Your task to perform on an android device: check android version Image 0: 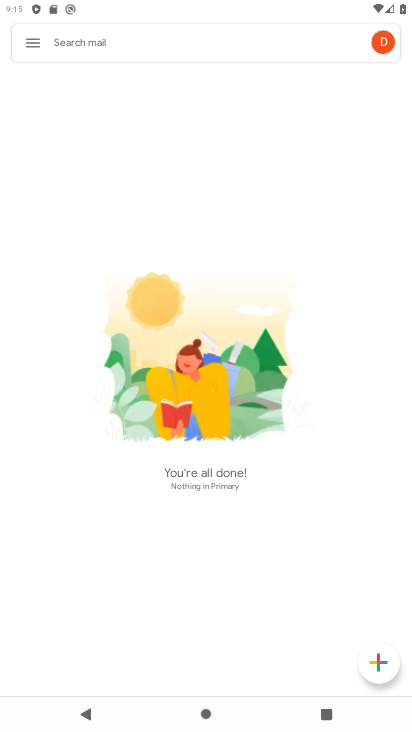
Step 0: press home button
Your task to perform on an android device: check android version Image 1: 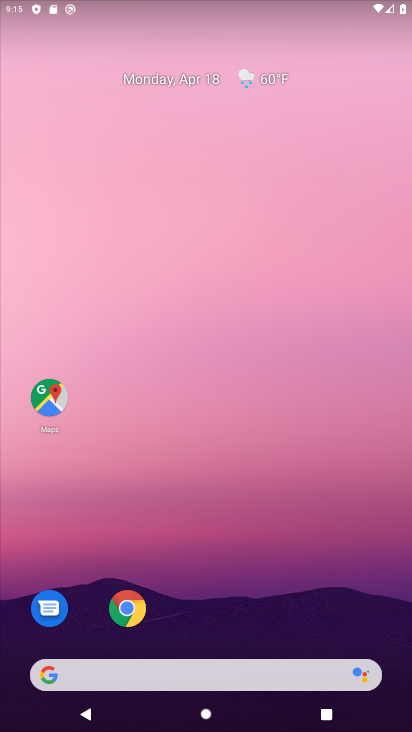
Step 1: drag from (272, 612) to (289, 7)
Your task to perform on an android device: check android version Image 2: 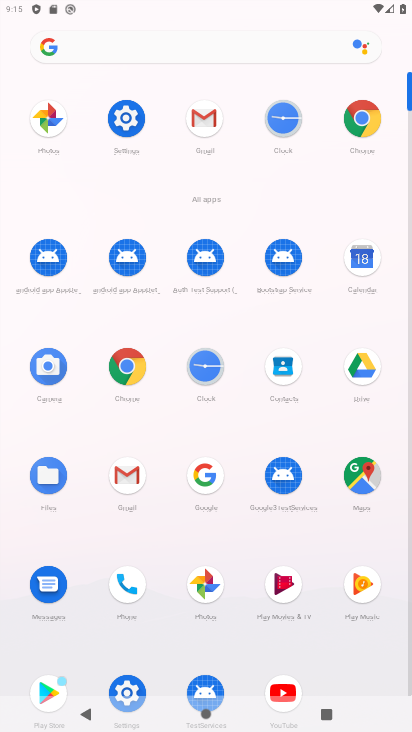
Step 2: click (130, 116)
Your task to perform on an android device: check android version Image 3: 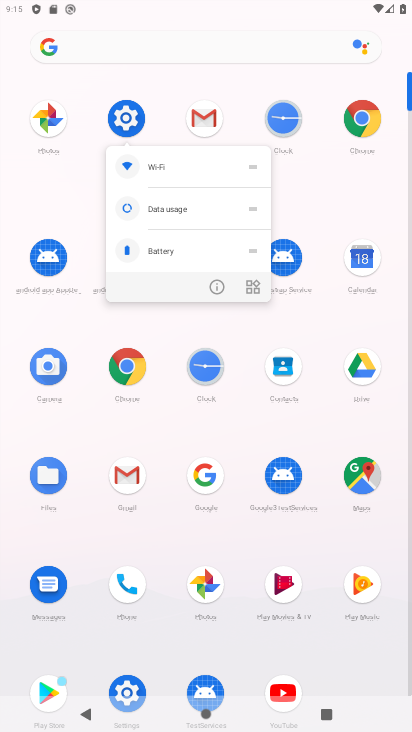
Step 3: click (130, 116)
Your task to perform on an android device: check android version Image 4: 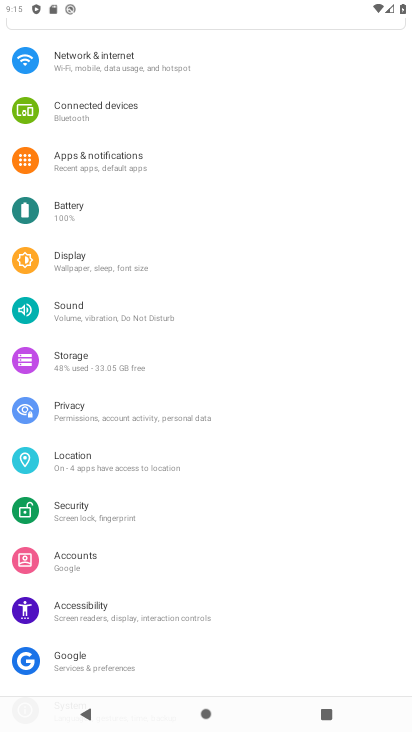
Step 4: drag from (248, 640) to (264, 137)
Your task to perform on an android device: check android version Image 5: 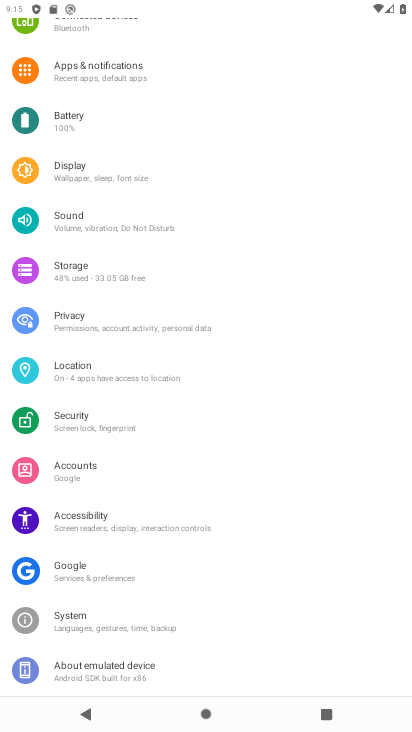
Step 5: click (80, 659)
Your task to perform on an android device: check android version Image 6: 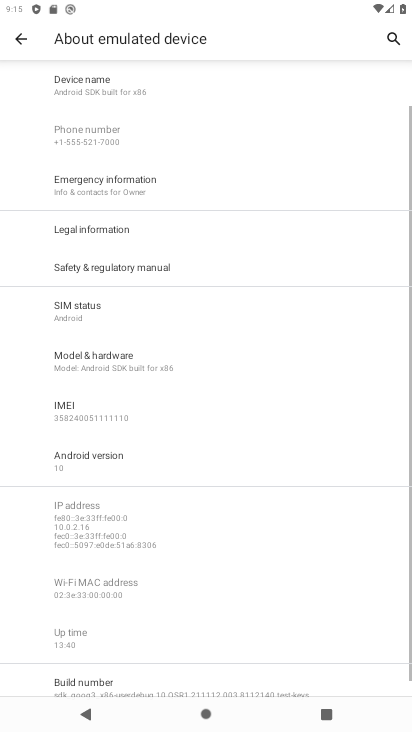
Step 6: click (89, 455)
Your task to perform on an android device: check android version Image 7: 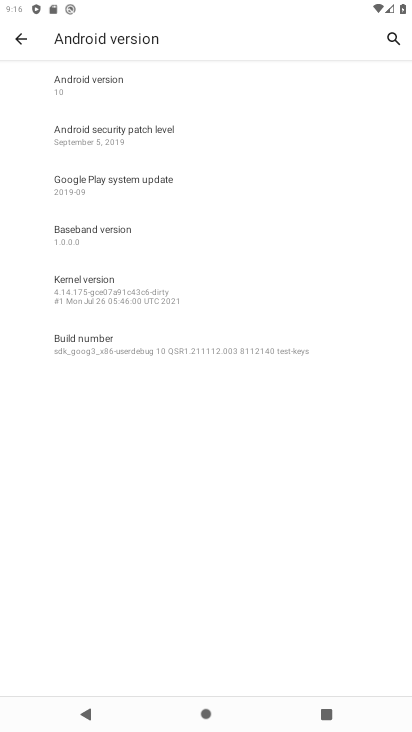
Step 7: click (94, 80)
Your task to perform on an android device: check android version Image 8: 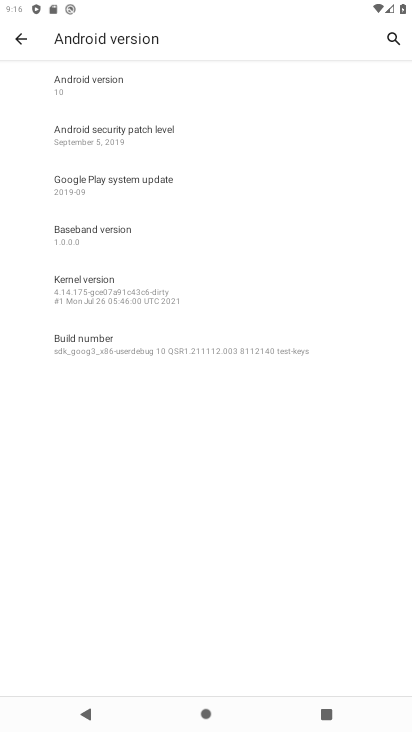
Step 8: task complete